Your task to perform on an android device: When is my next meeting? Image 0: 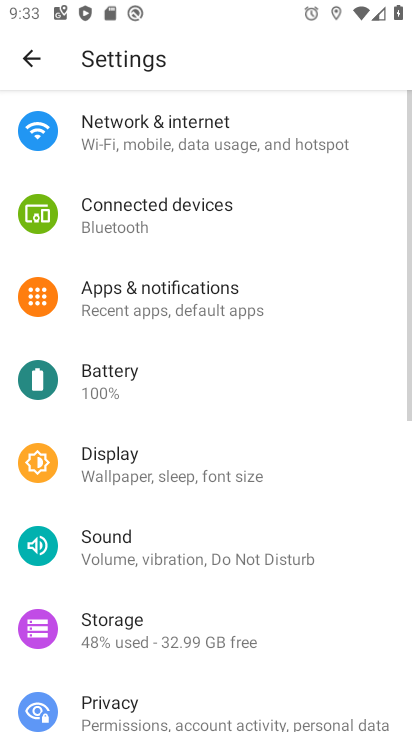
Step 0: press home button
Your task to perform on an android device: When is my next meeting? Image 1: 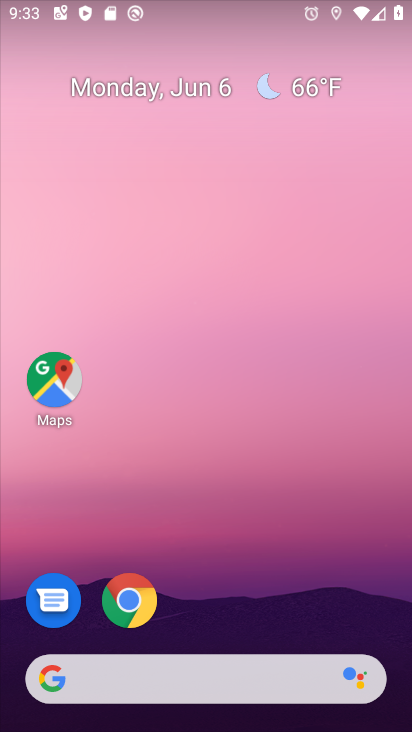
Step 1: drag from (97, 542) to (349, 129)
Your task to perform on an android device: When is my next meeting? Image 2: 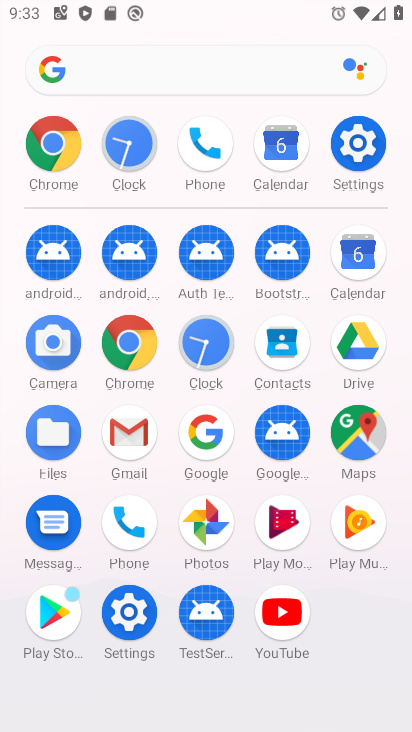
Step 2: click (363, 267)
Your task to perform on an android device: When is my next meeting? Image 3: 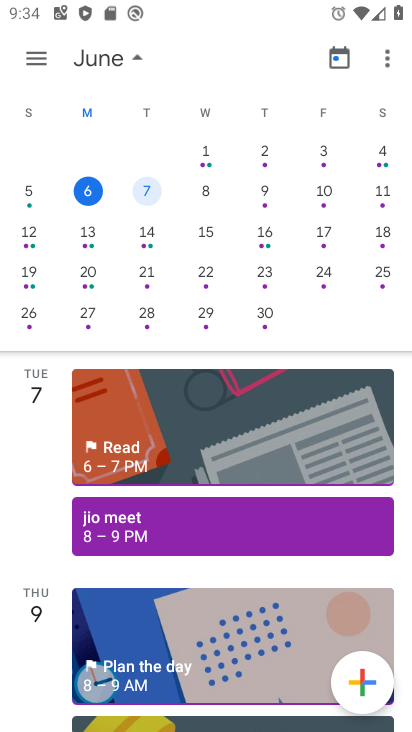
Step 3: click (147, 201)
Your task to perform on an android device: When is my next meeting? Image 4: 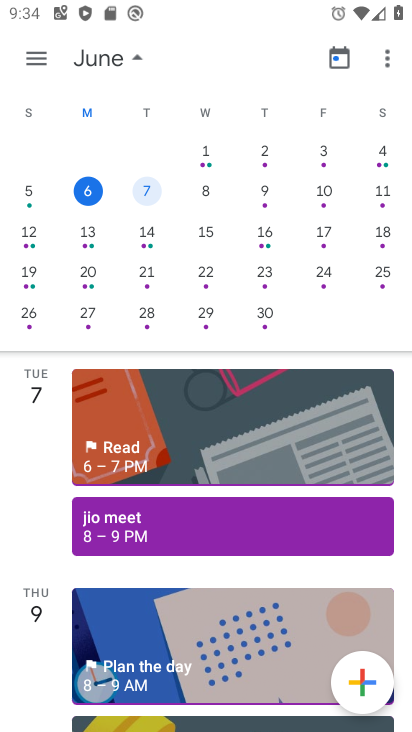
Step 4: task complete